Your task to perform on an android device: open sync settings in chrome Image 0: 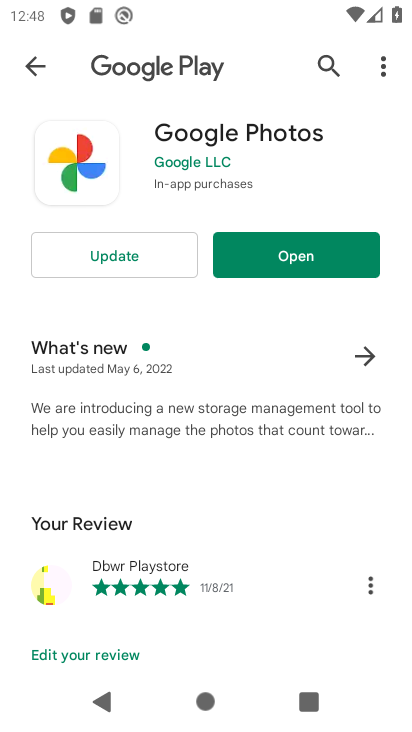
Step 0: press home button
Your task to perform on an android device: open sync settings in chrome Image 1: 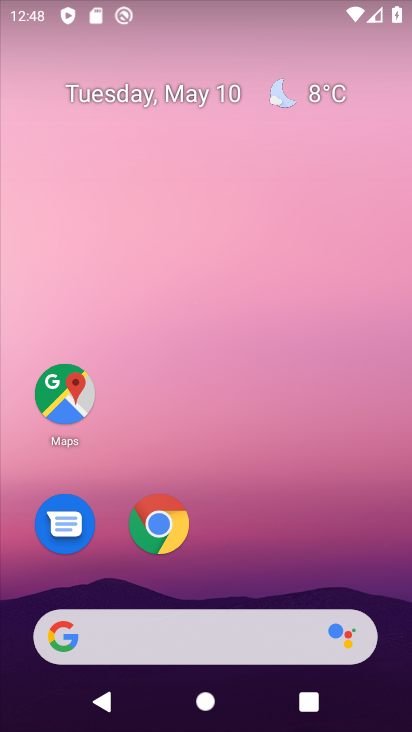
Step 1: click (160, 515)
Your task to perform on an android device: open sync settings in chrome Image 2: 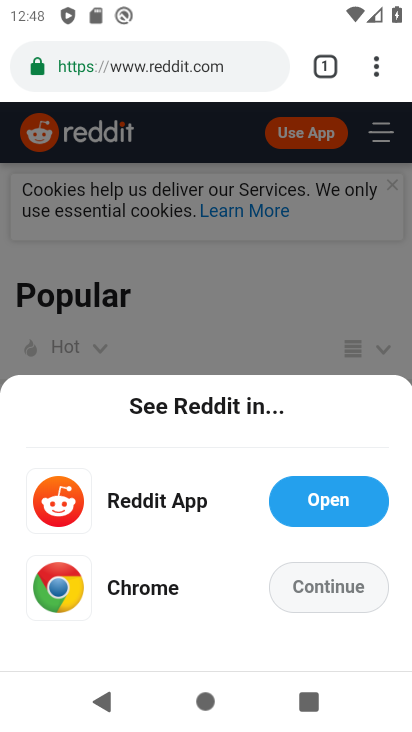
Step 2: click (357, 590)
Your task to perform on an android device: open sync settings in chrome Image 3: 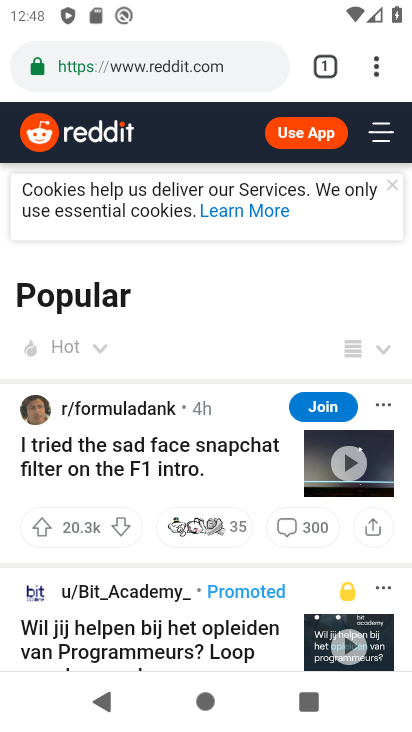
Step 3: click (373, 69)
Your task to perform on an android device: open sync settings in chrome Image 4: 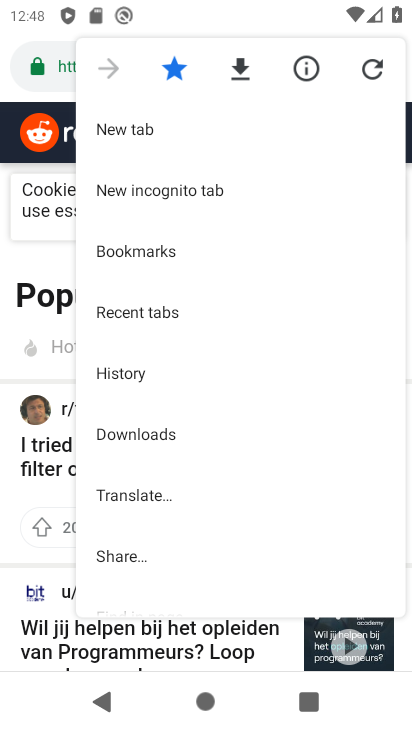
Step 4: drag from (316, 449) to (335, 178)
Your task to perform on an android device: open sync settings in chrome Image 5: 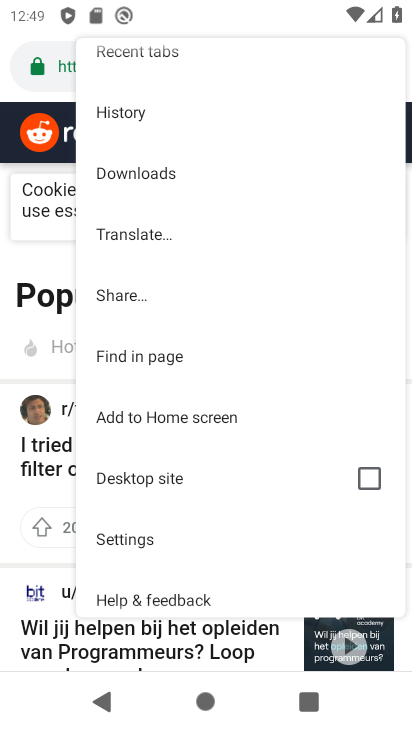
Step 5: click (146, 540)
Your task to perform on an android device: open sync settings in chrome Image 6: 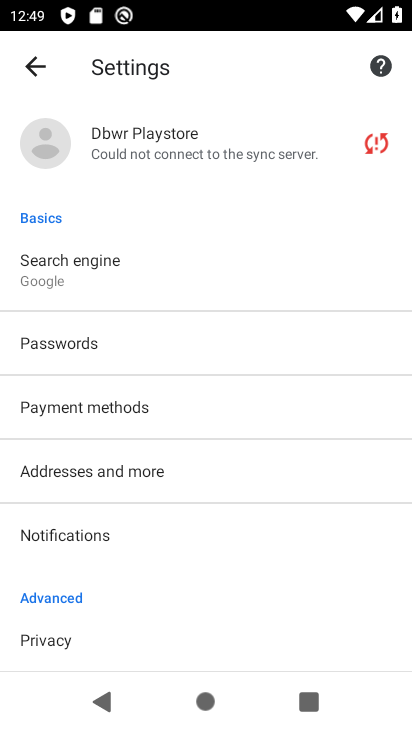
Step 6: click (205, 144)
Your task to perform on an android device: open sync settings in chrome Image 7: 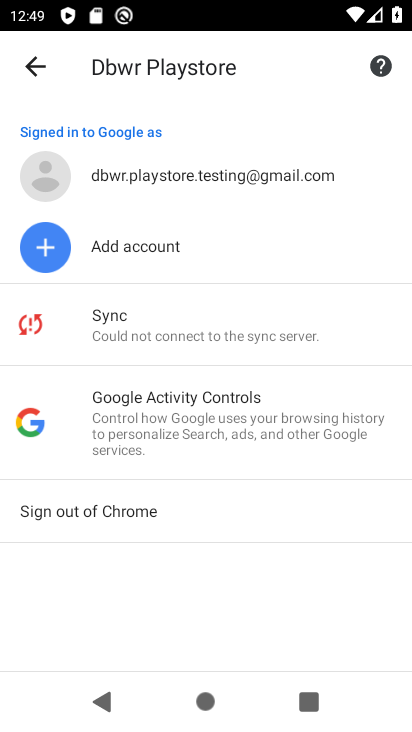
Step 7: click (176, 312)
Your task to perform on an android device: open sync settings in chrome Image 8: 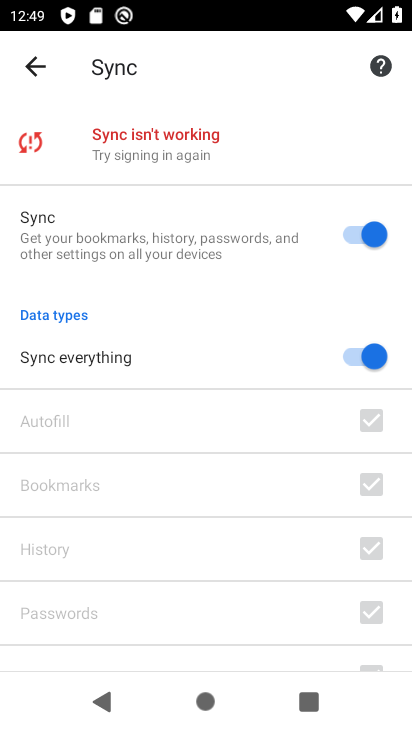
Step 8: task complete